Your task to perform on an android device: Is it going to rain today? Image 0: 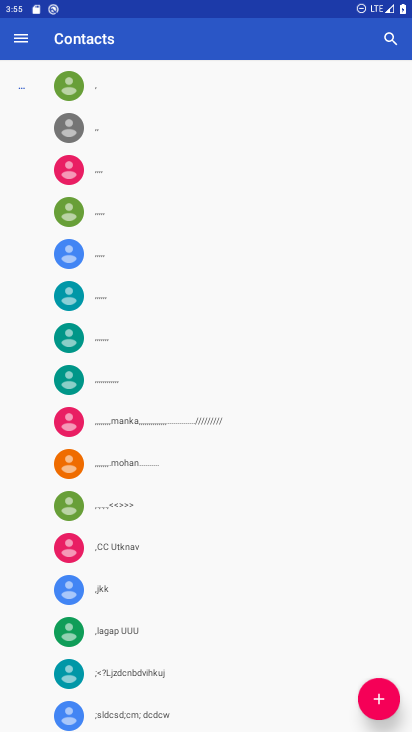
Step 0: press home button
Your task to perform on an android device: Is it going to rain today? Image 1: 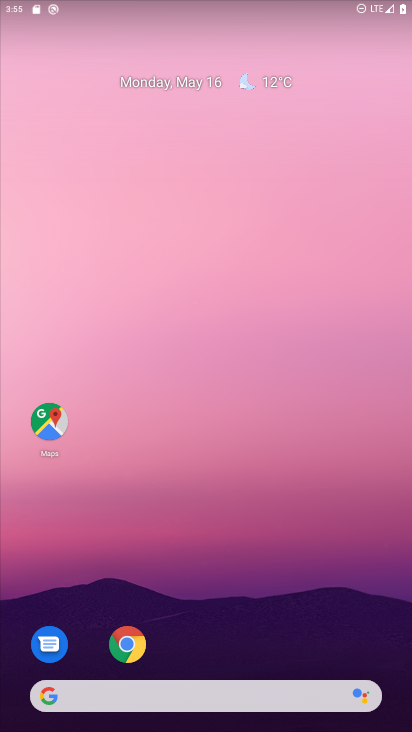
Step 1: click (275, 80)
Your task to perform on an android device: Is it going to rain today? Image 2: 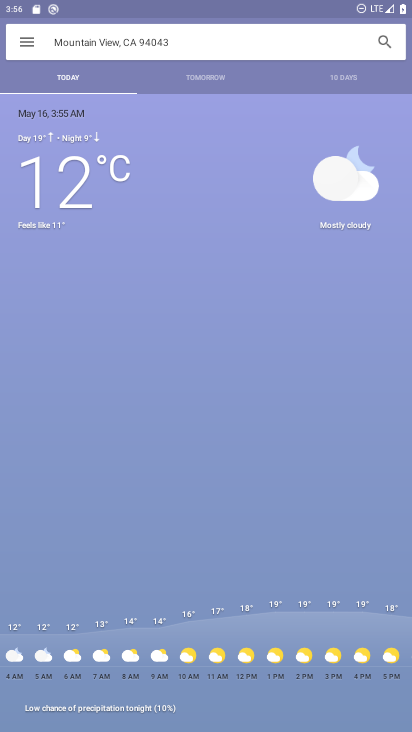
Step 2: task complete